Your task to perform on an android device: install app "eBay: The shopping marketplace" Image 0: 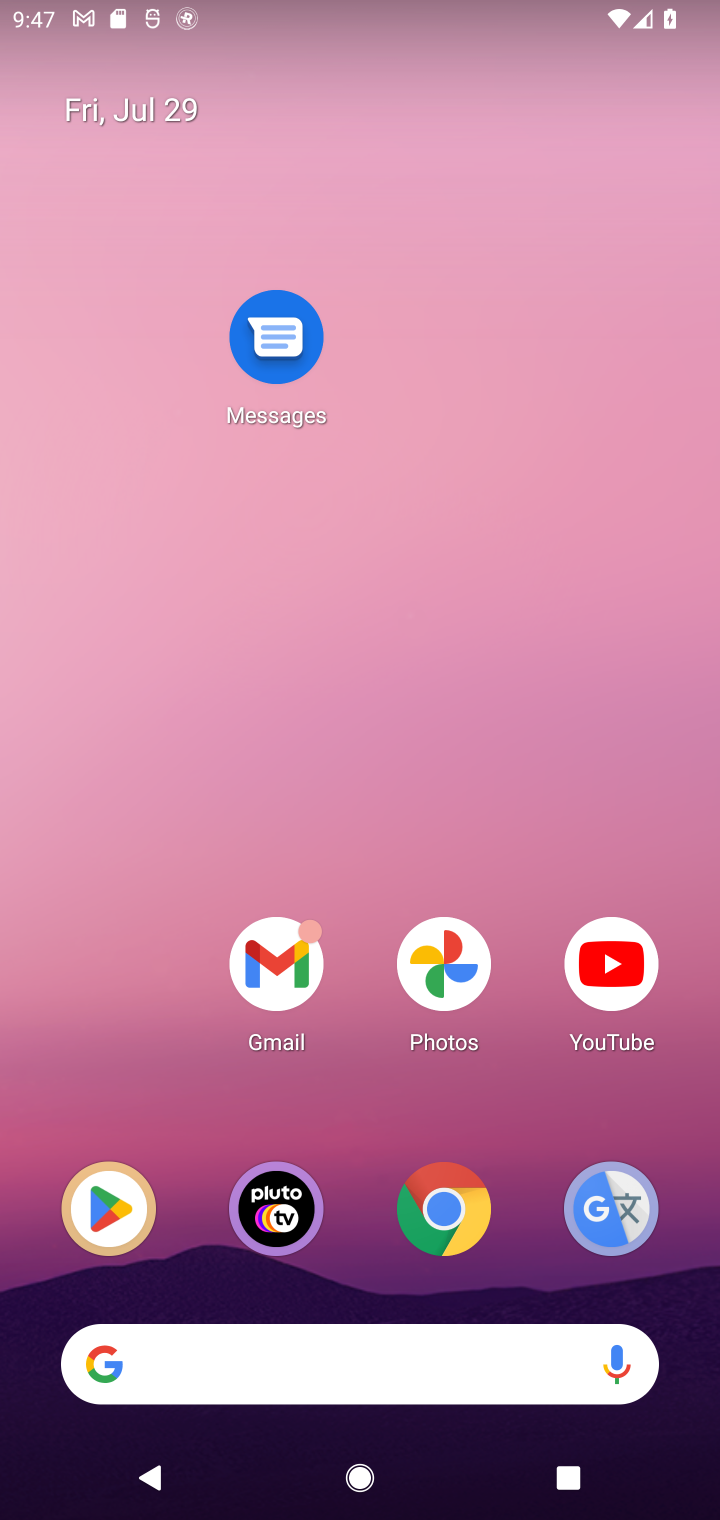
Step 0: press home button
Your task to perform on an android device: install app "eBay: The shopping marketplace" Image 1: 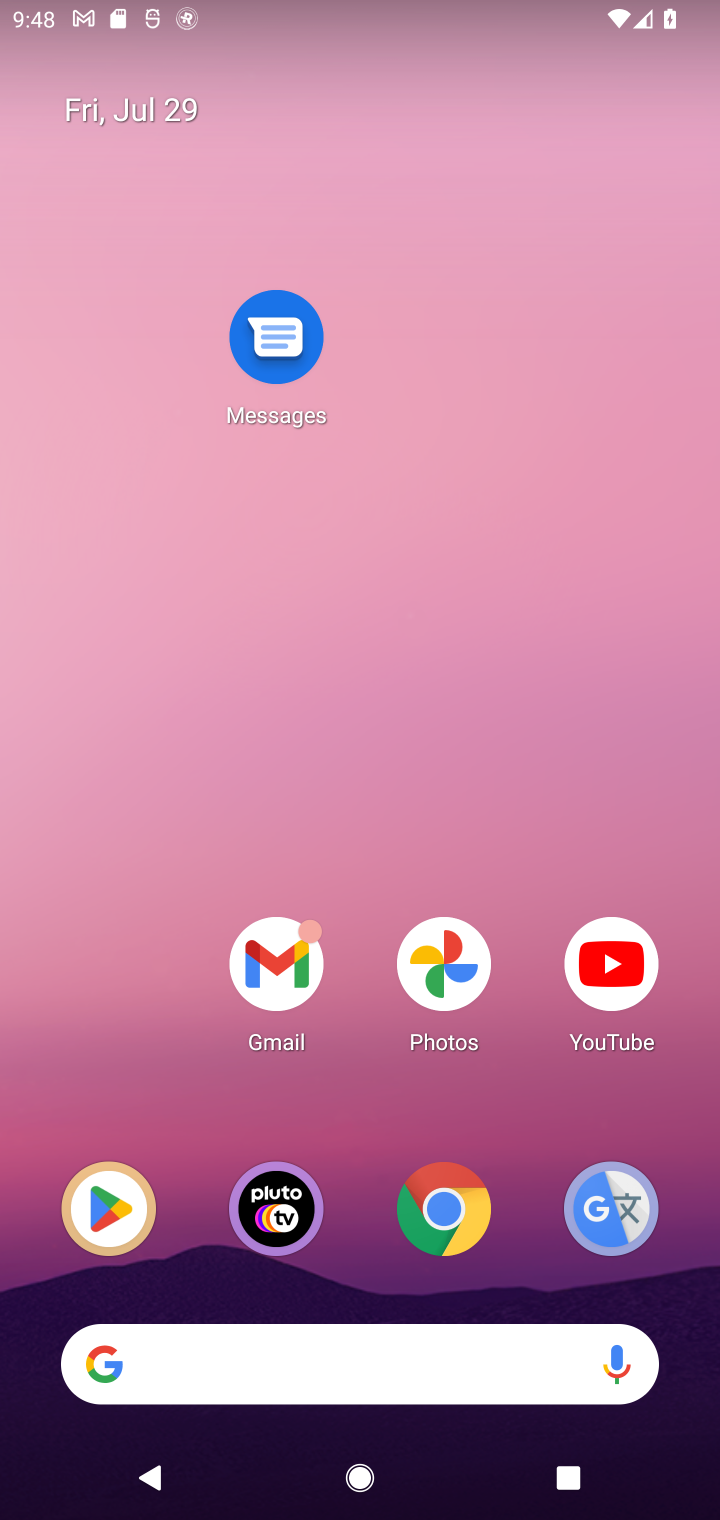
Step 1: drag from (255, 1364) to (425, 448)
Your task to perform on an android device: install app "eBay: The shopping marketplace" Image 2: 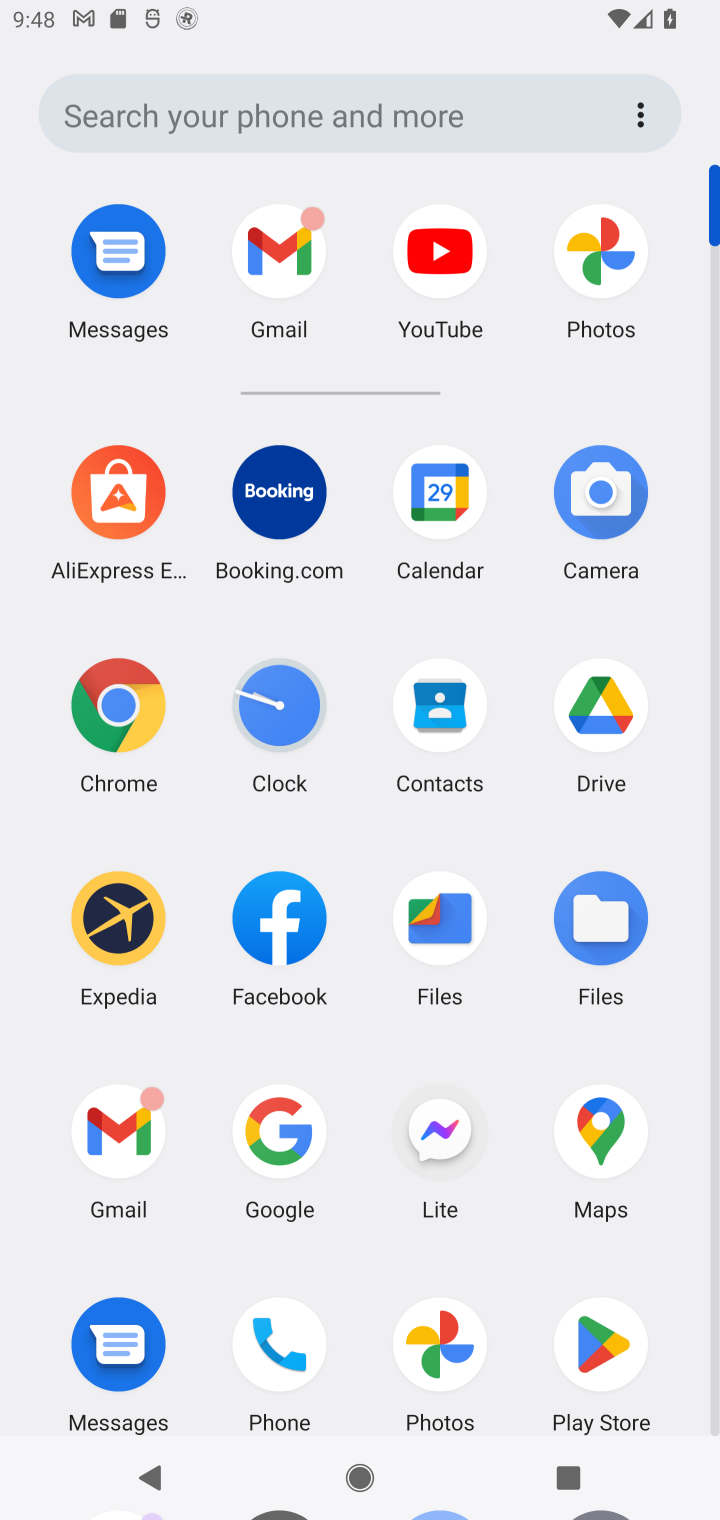
Step 2: drag from (370, 1267) to (393, 640)
Your task to perform on an android device: install app "eBay: The shopping marketplace" Image 3: 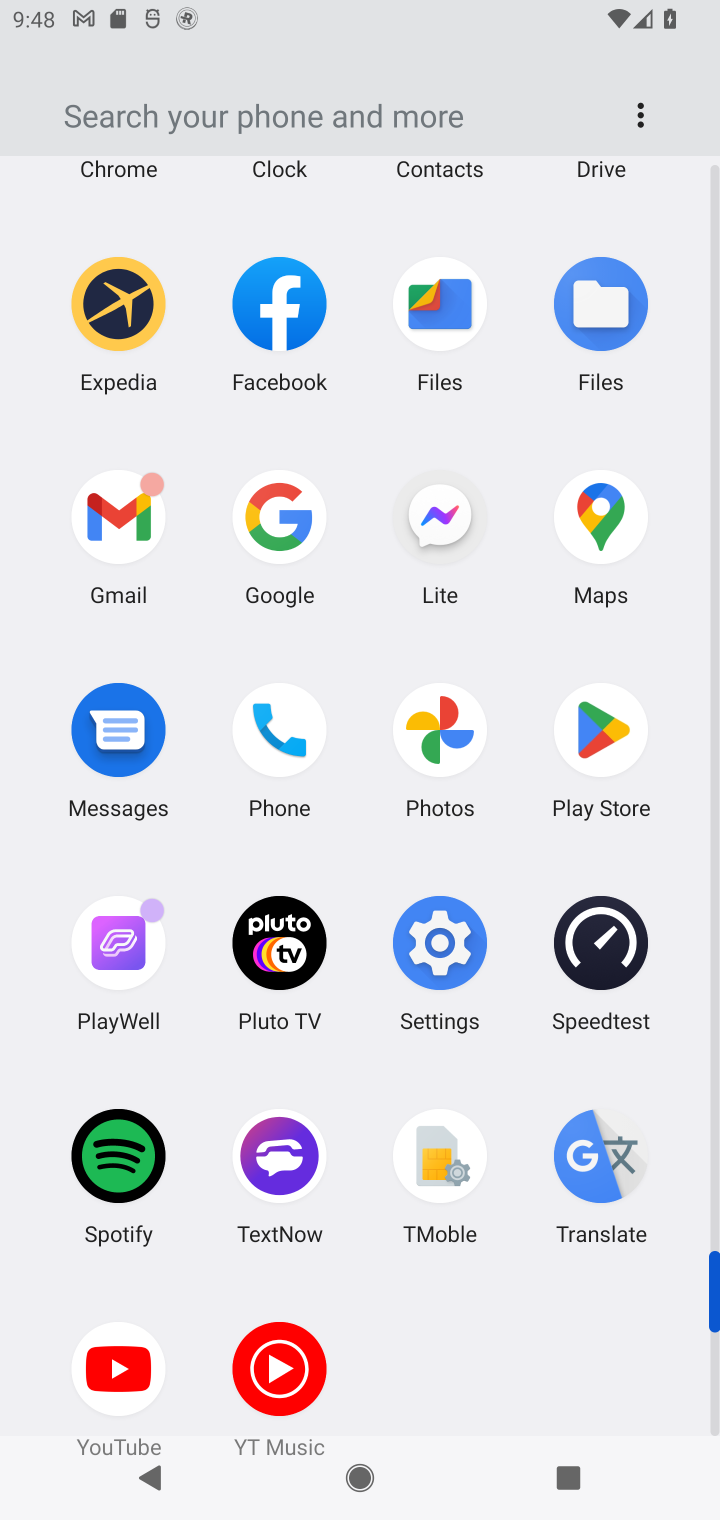
Step 3: click (602, 737)
Your task to perform on an android device: install app "eBay: The shopping marketplace" Image 4: 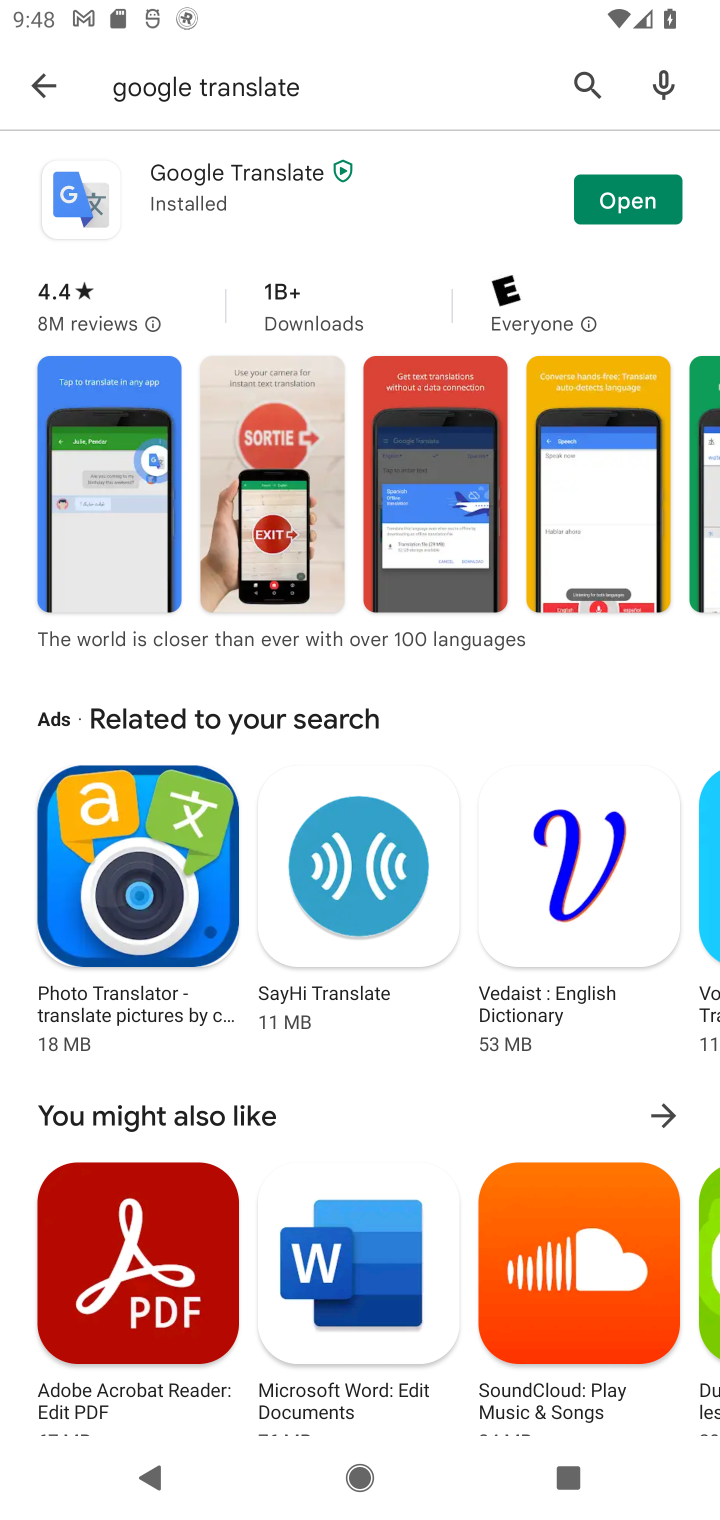
Step 4: click (531, 89)
Your task to perform on an android device: install app "eBay: The shopping marketplace" Image 5: 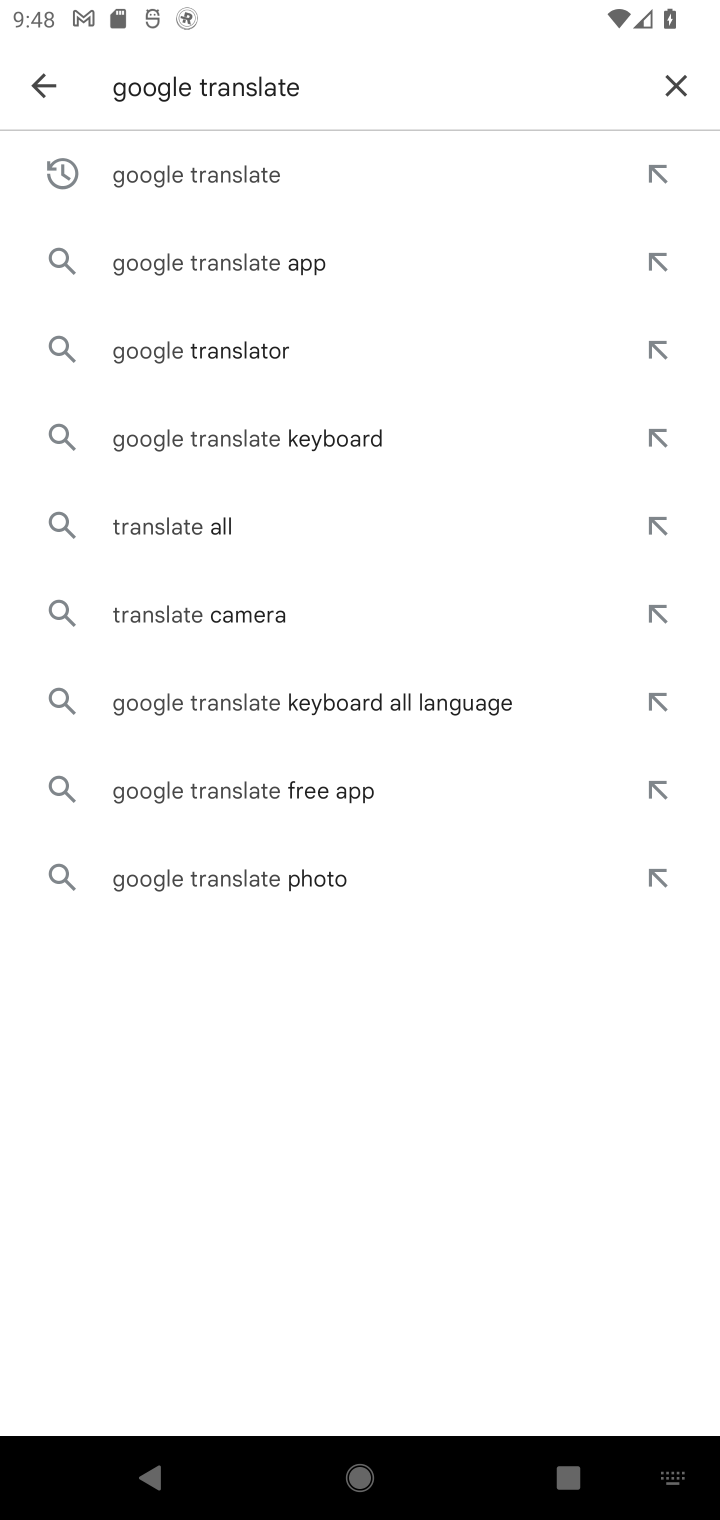
Step 5: click (685, 80)
Your task to perform on an android device: install app "eBay: The shopping marketplace" Image 6: 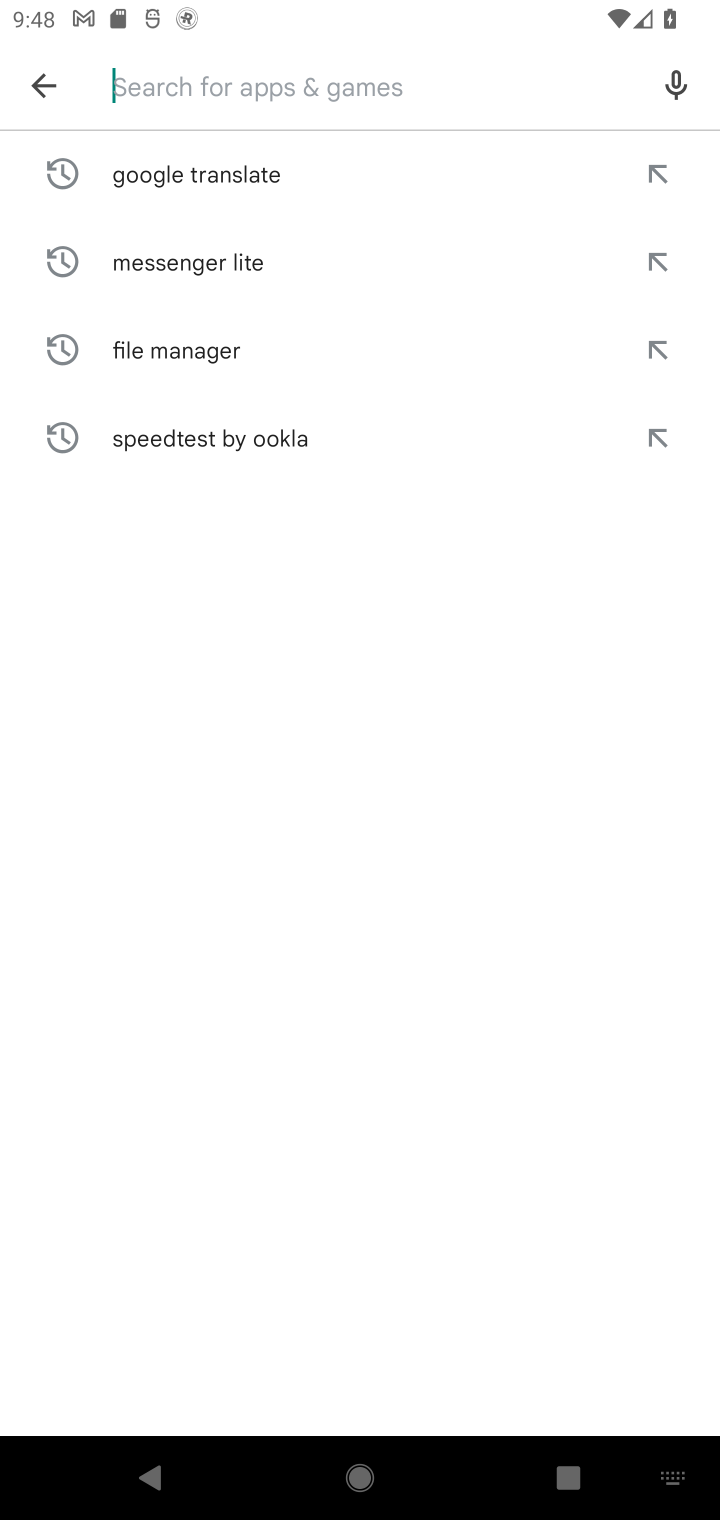
Step 6: click (296, 74)
Your task to perform on an android device: install app "eBay: The shopping marketplace" Image 7: 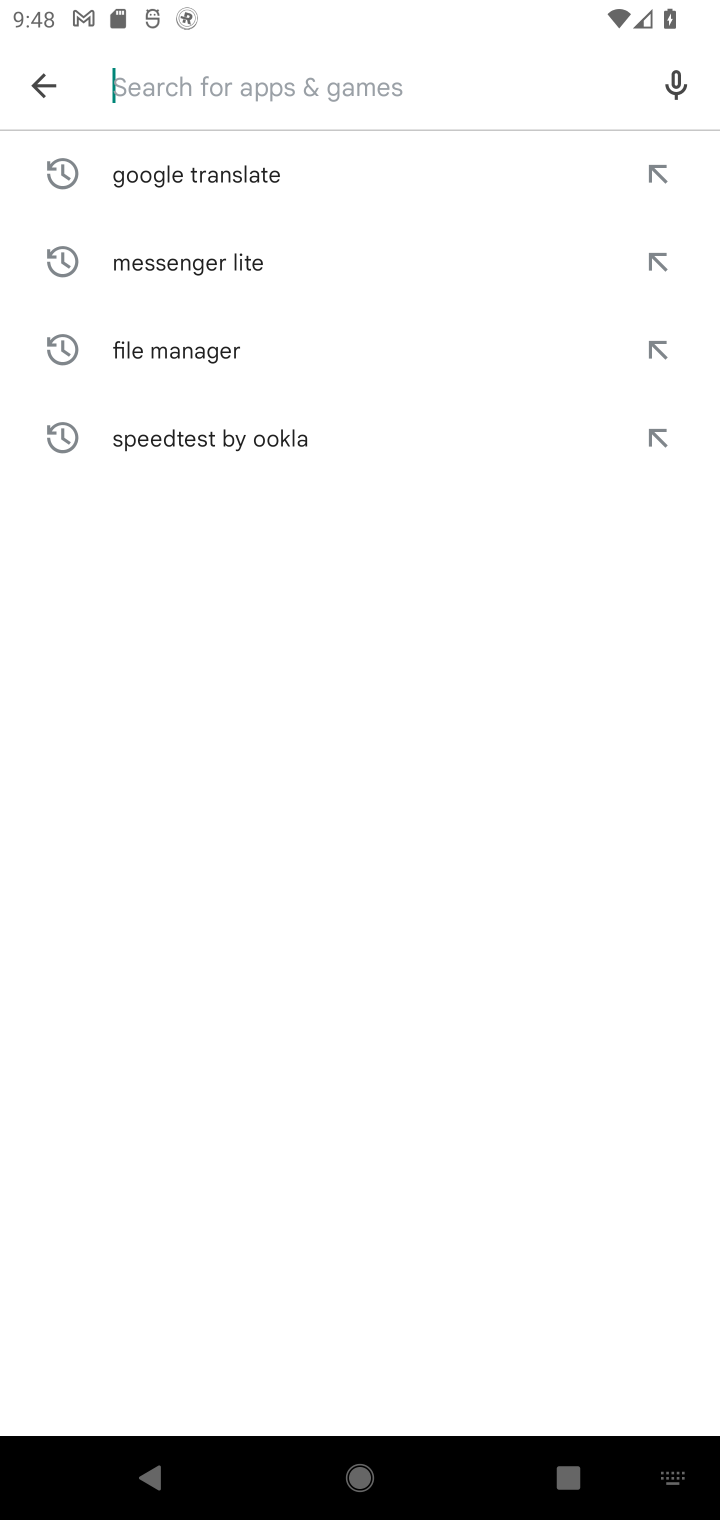
Step 7: type "eBay: The shopping marketplace"
Your task to perform on an android device: install app "eBay: The shopping marketplace" Image 8: 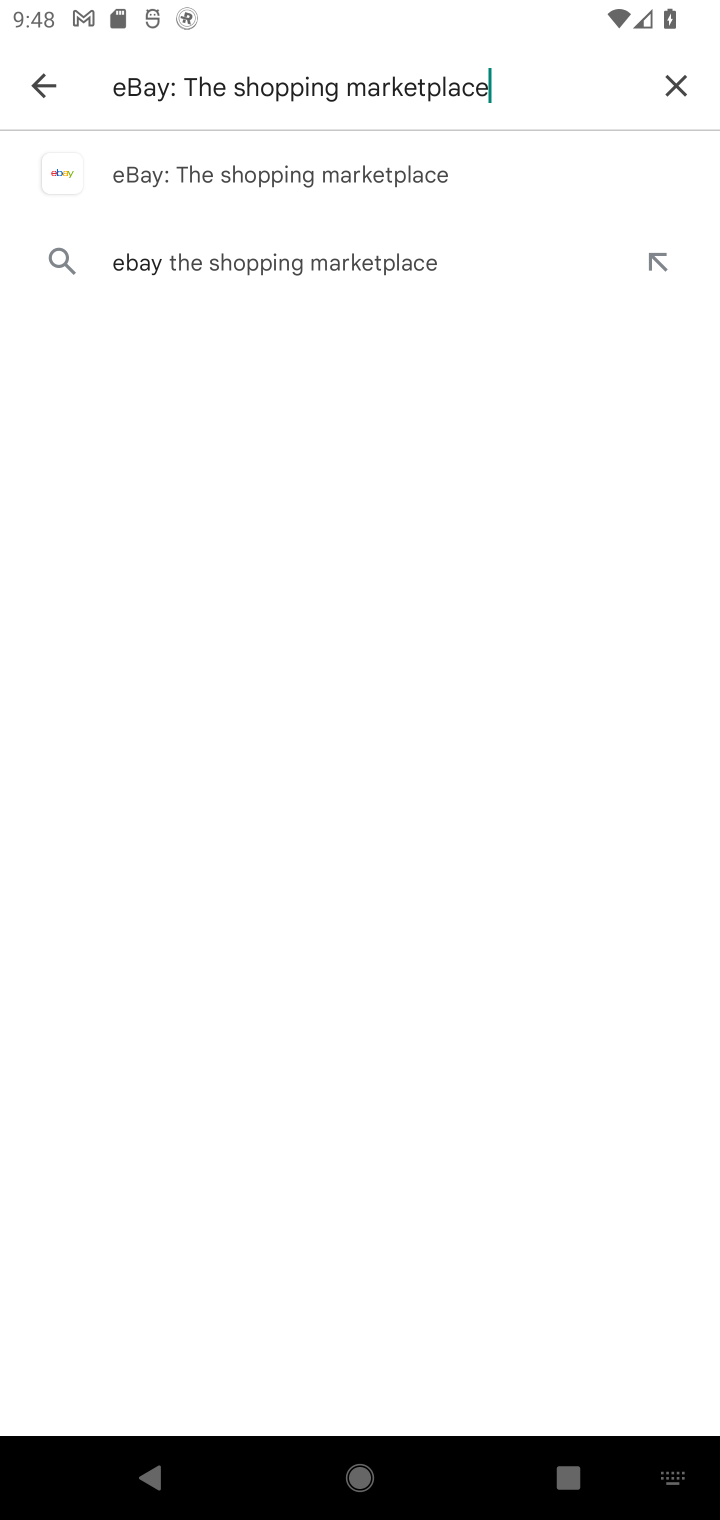
Step 8: click (368, 182)
Your task to perform on an android device: install app "eBay: The shopping marketplace" Image 9: 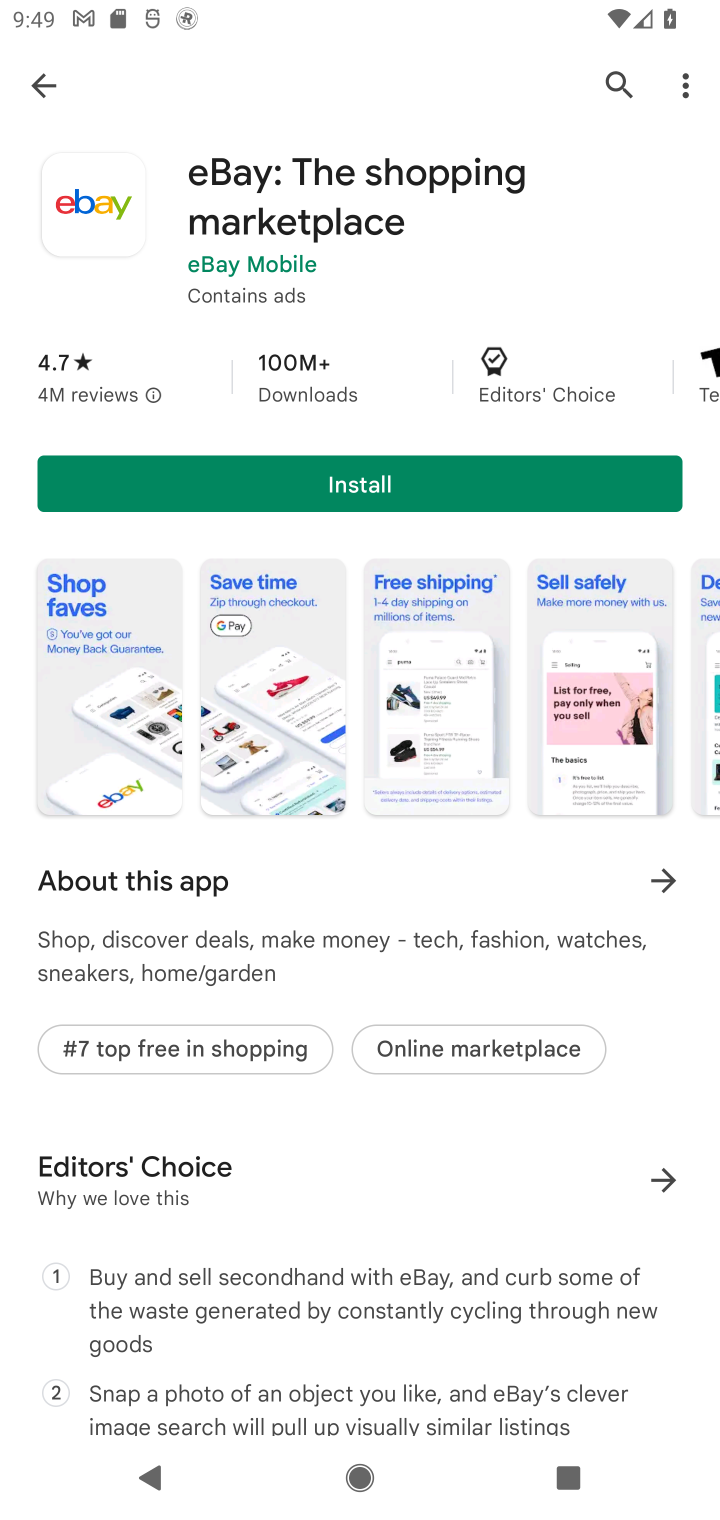
Step 9: click (288, 493)
Your task to perform on an android device: install app "eBay: The shopping marketplace" Image 10: 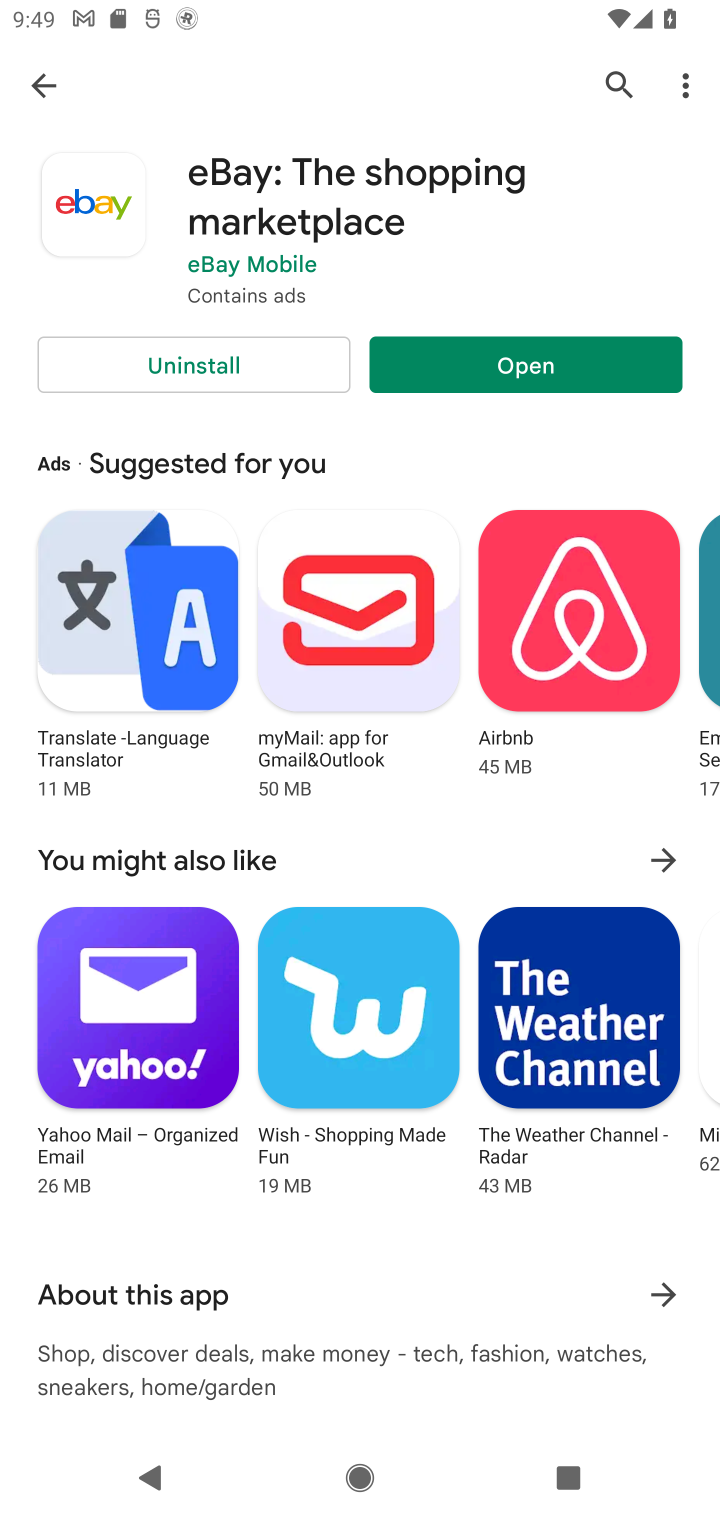
Step 10: task complete